Your task to perform on an android device: Search for seafood restaurants on Google Maps Image 0: 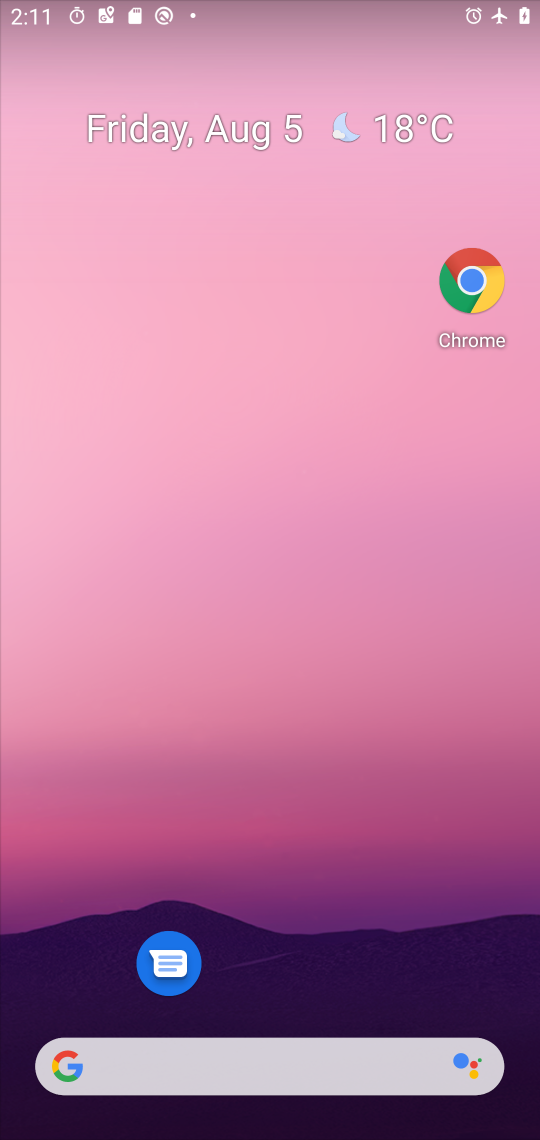
Step 0: drag from (364, 987) to (459, 0)
Your task to perform on an android device: Search for seafood restaurants on Google Maps Image 1: 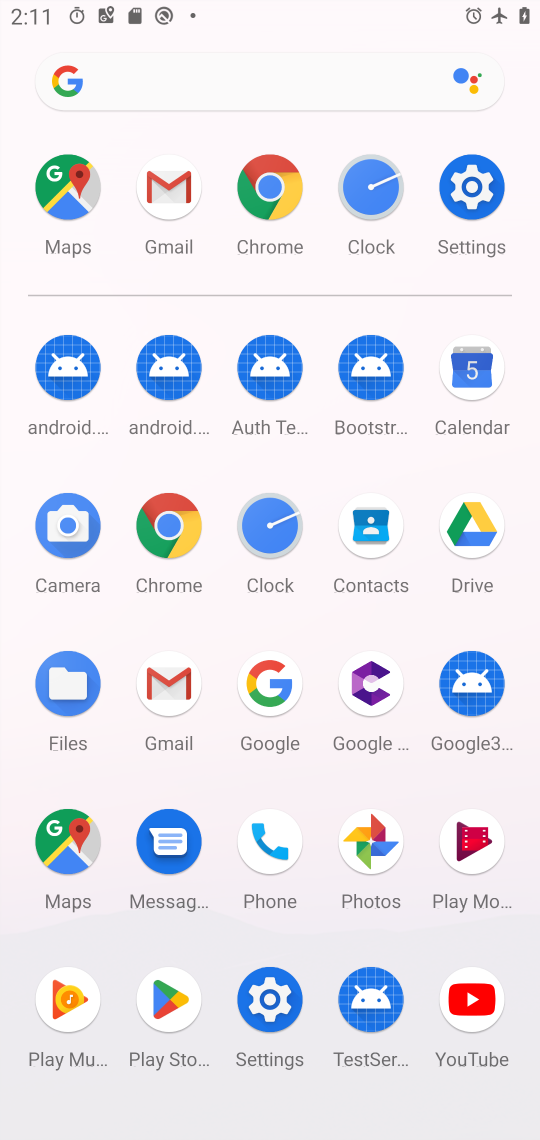
Step 1: click (80, 169)
Your task to perform on an android device: Search for seafood restaurants on Google Maps Image 2: 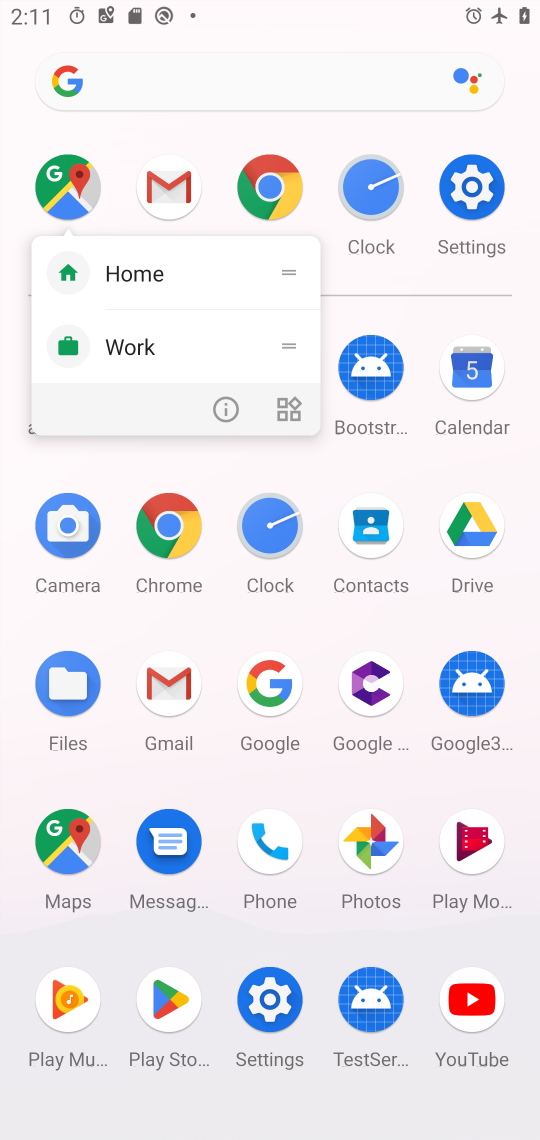
Step 2: click (85, 172)
Your task to perform on an android device: Search for seafood restaurants on Google Maps Image 3: 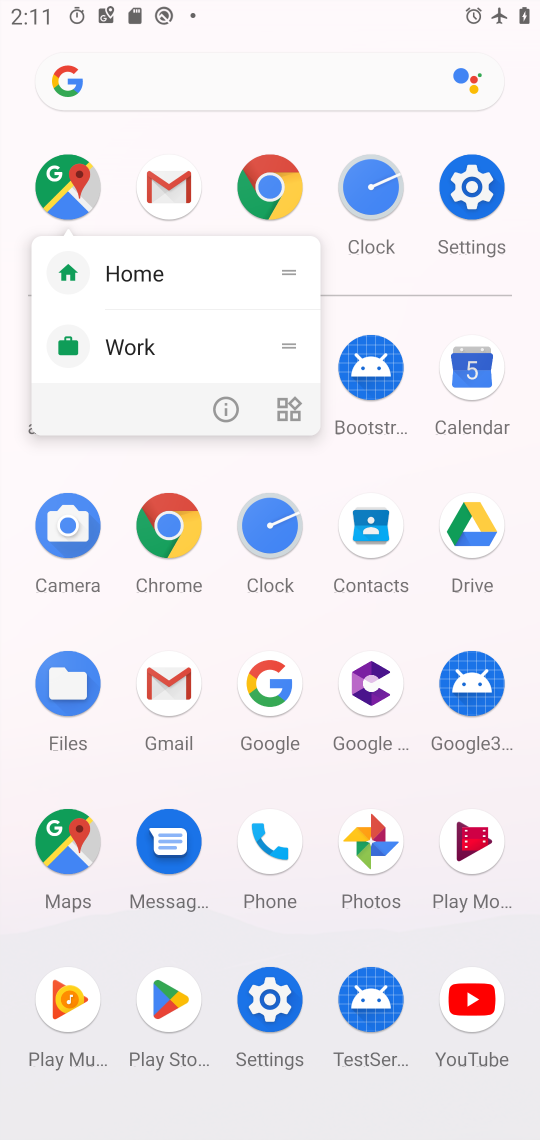
Step 3: click (73, 185)
Your task to perform on an android device: Search for seafood restaurants on Google Maps Image 4: 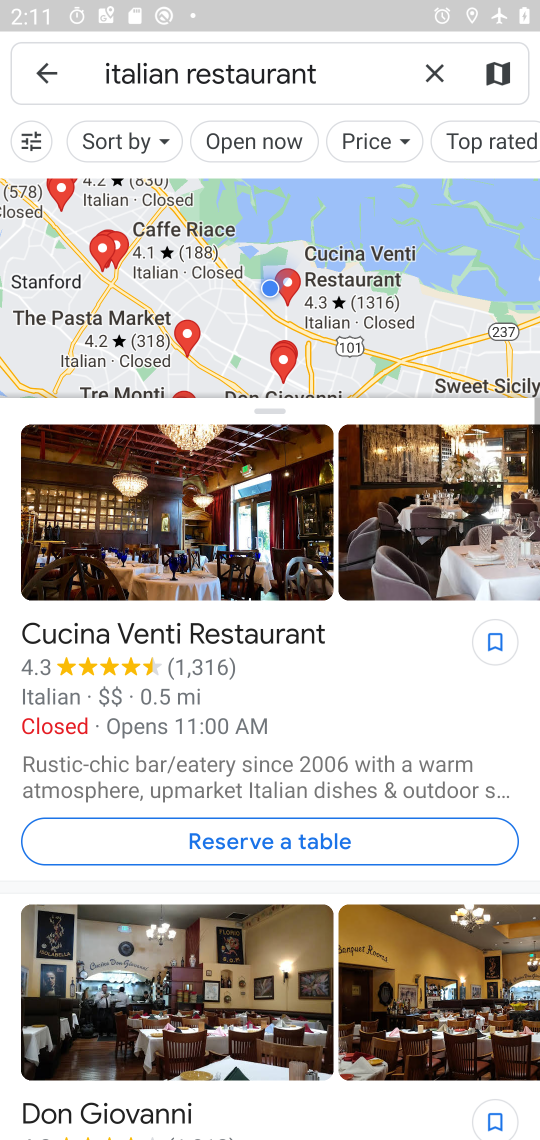
Step 4: click (432, 68)
Your task to perform on an android device: Search for seafood restaurants on Google Maps Image 5: 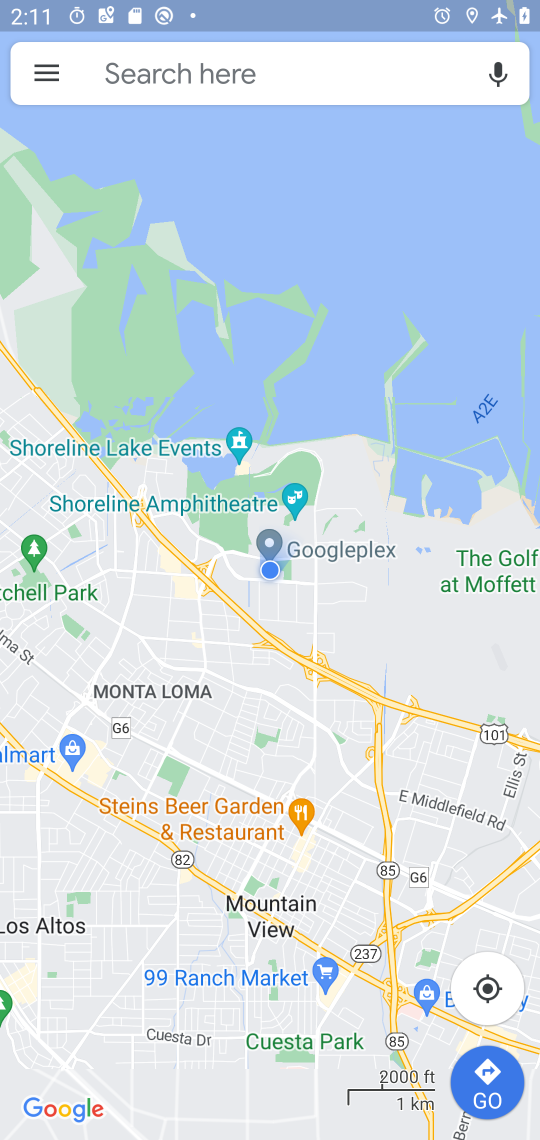
Step 5: click (151, 78)
Your task to perform on an android device: Search for seafood restaurants on Google Maps Image 6: 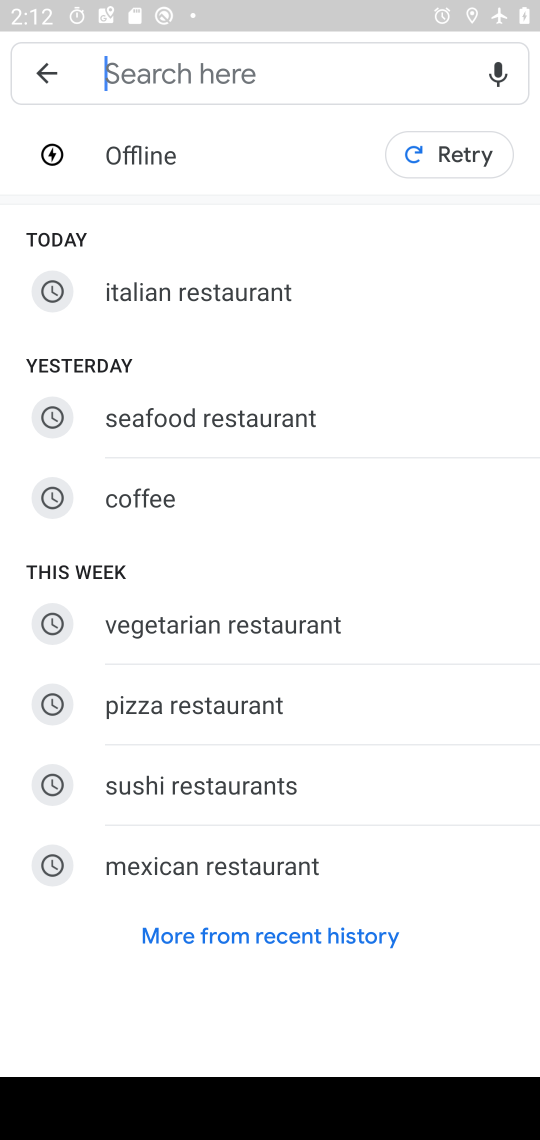
Step 6: click (134, 423)
Your task to perform on an android device: Search for seafood restaurants on Google Maps Image 7: 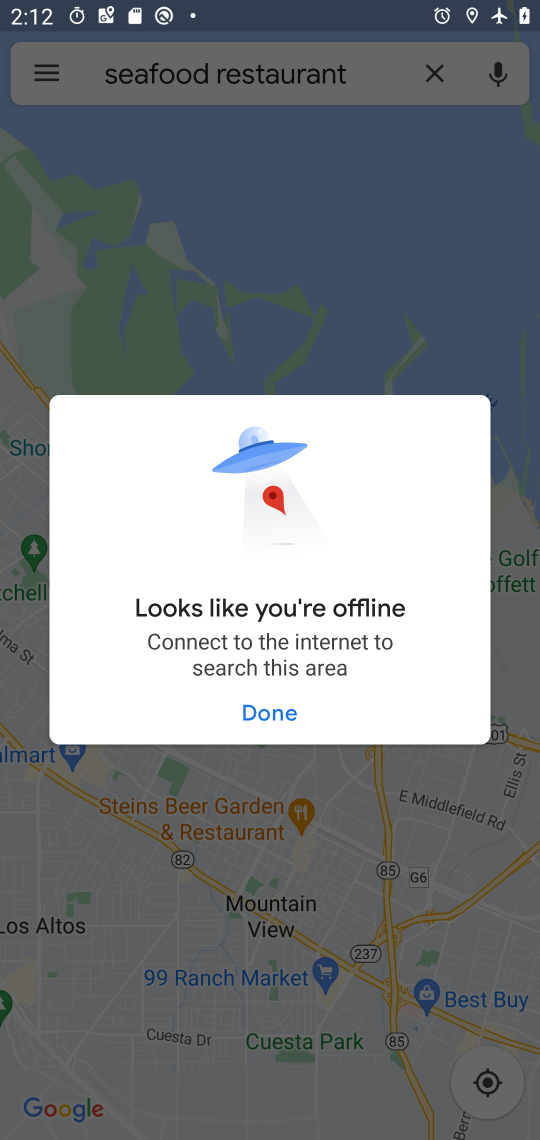
Step 7: task complete